Your task to perform on an android device: manage bookmarks in the chrome app Image 0: 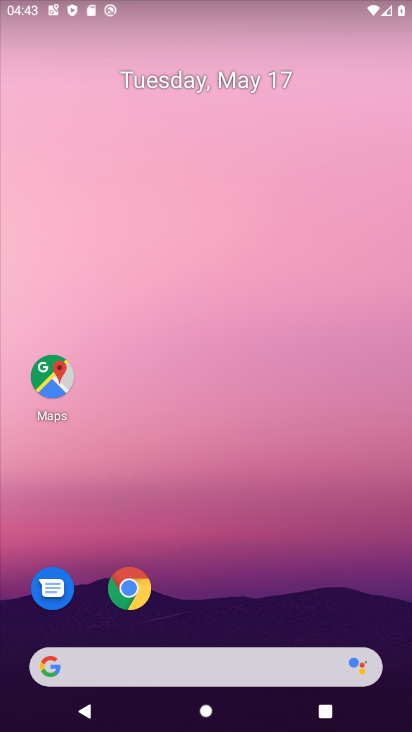
Step 0: click (130, 590)
Your task to perform on an android device: manage bookmarks in the chrome app Image 1: 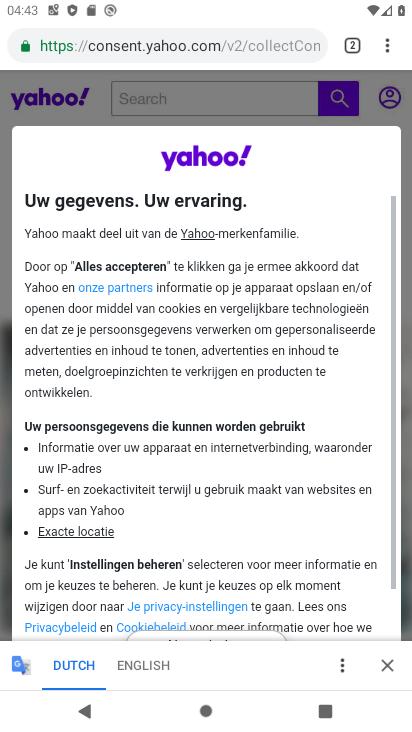
Step 1: click (389, 45)
Your task to perform on an android device: manage bookmarks in the chrome app Image 2: 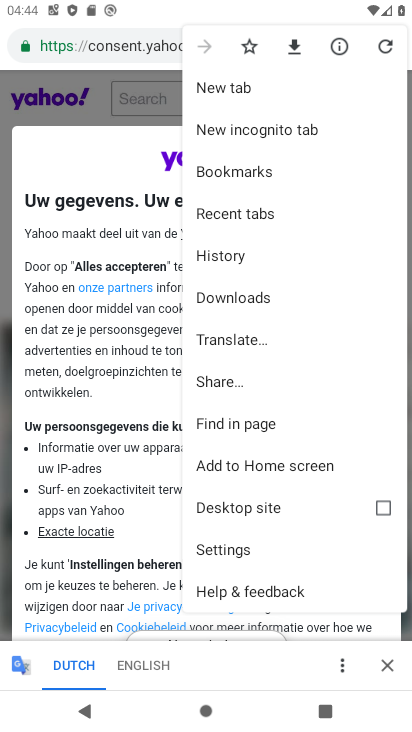
Step 2: click (249, 170)
Your task to perform on an android device: manage bookmarks in the chrome app Image 3: 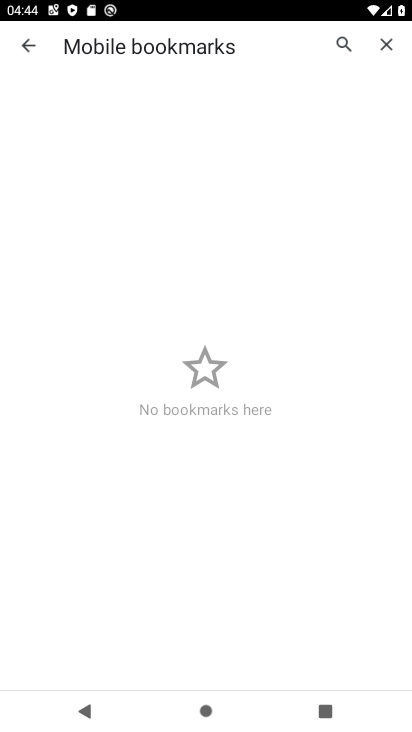
Step 3: task complete